Your task to perform on an android device: manage bookmarks in the chrome app Image 0: 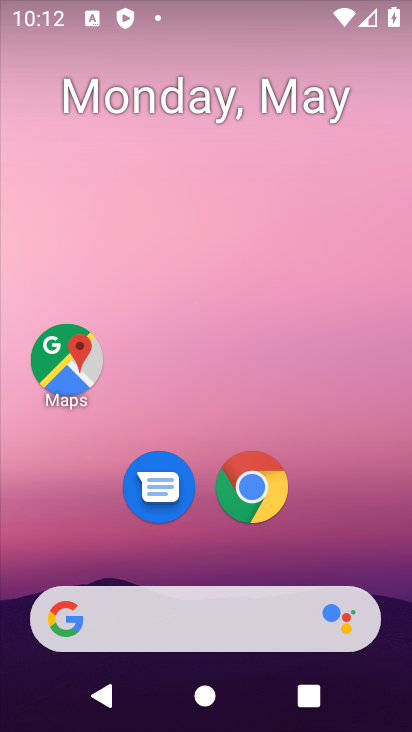
Step 0: click (252, 502)
Your task to perform on an android device: manage bookmarks in the chrome app Image 1: 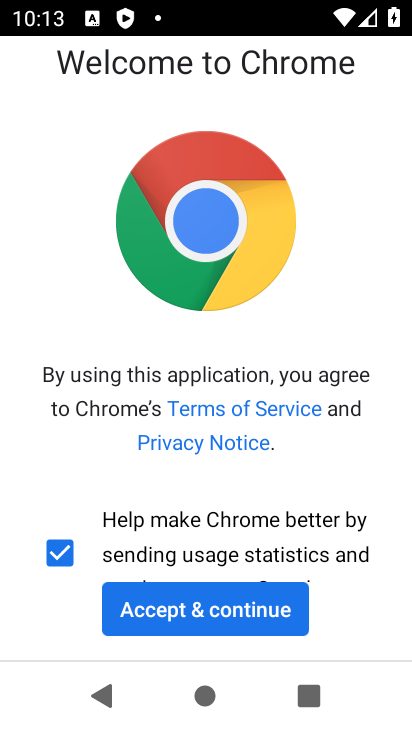
Step 1: click (223, 622)
Your task to perform on an android device: manage bookmarks in the chrome app Image 2: 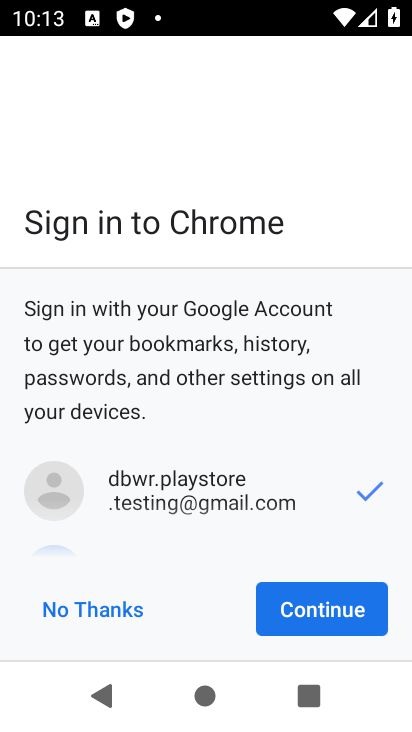
Step 2: click (374, 620)
Your task to perform on an android device: manage bookmarks in the chrome app Image 3: 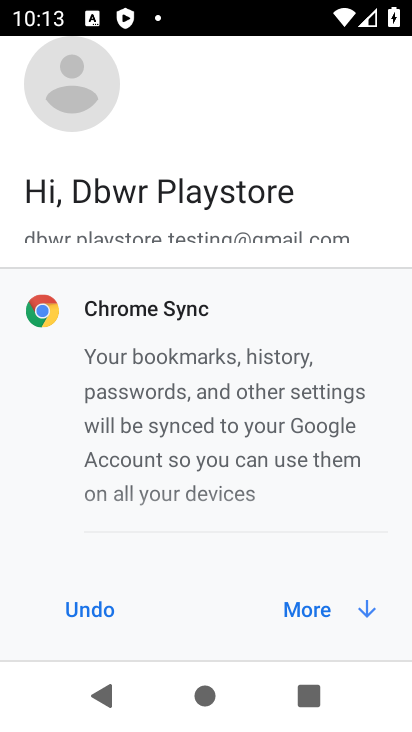
Step 3: click (304, 609)
Your task to perform on an android device: manage bookmarks in the chrome app Image 4: 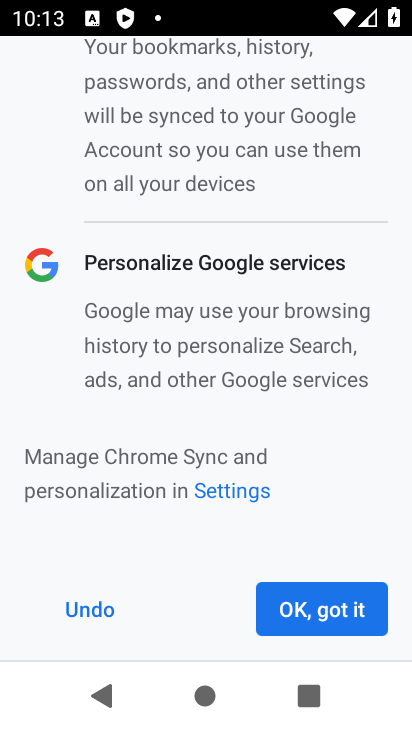
Step 4: click (304, 609)
Your task to perform on an android device: manage bookmarks in the chrome app Image 5: 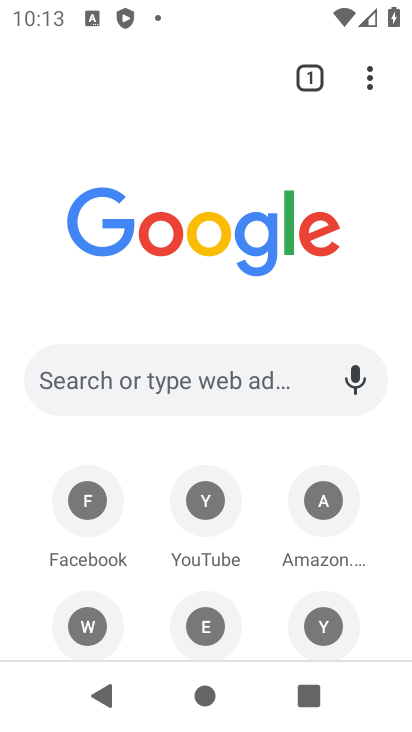
Step 5: click (375, 81)
Your task to perform on an android device: manage bookmarks in the chrome app Image 6: 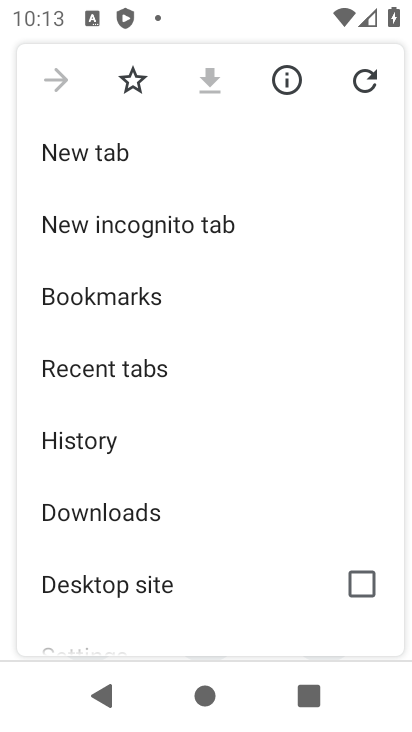
Step 6: click (135, 294)
Your task to perform on an android device: manage bookmarks in the chrome app Image 7: 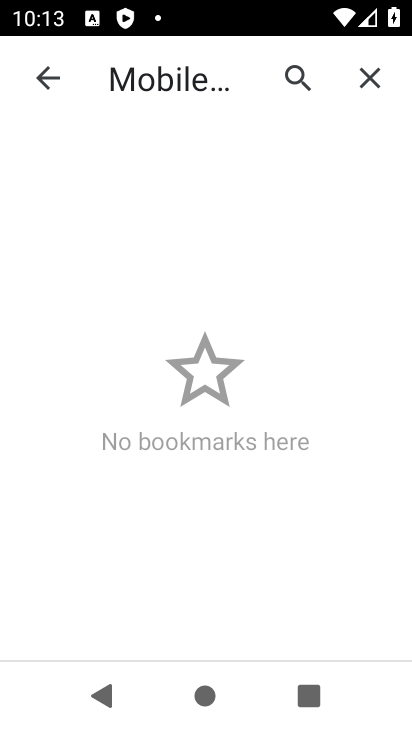
Step 7: task complete